Your task to perform on an android device: change the clock display to show seconds Image 0: 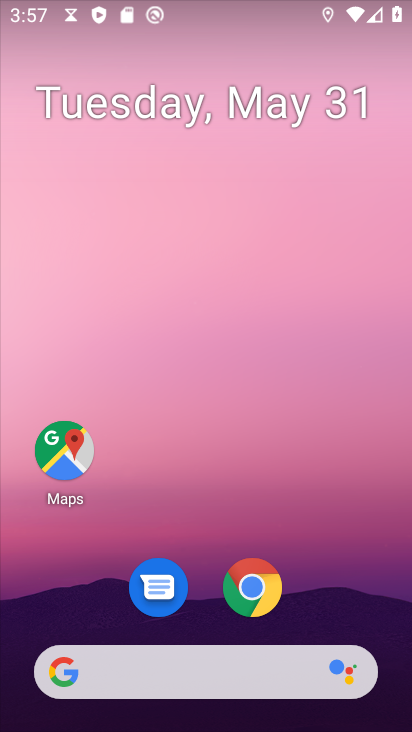
Step 0: drag from (79, 646) to (273, 154)
Your task to perform on an android device: change the clock display to show seconds Image 1: 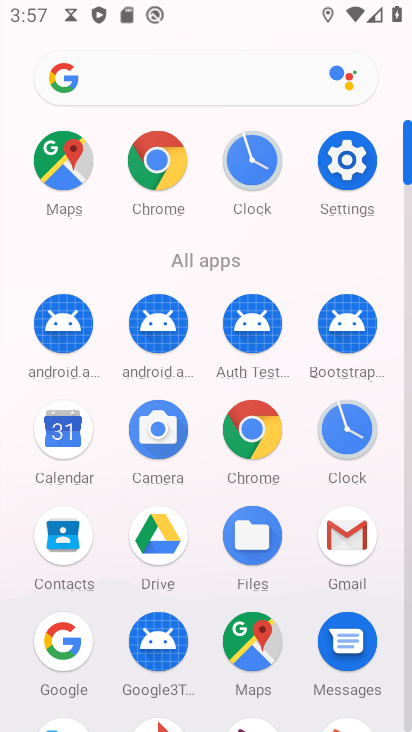
Step 1: click (337, 429)
Your task to perform on an android device: change the clock display to show seconds Image 2: 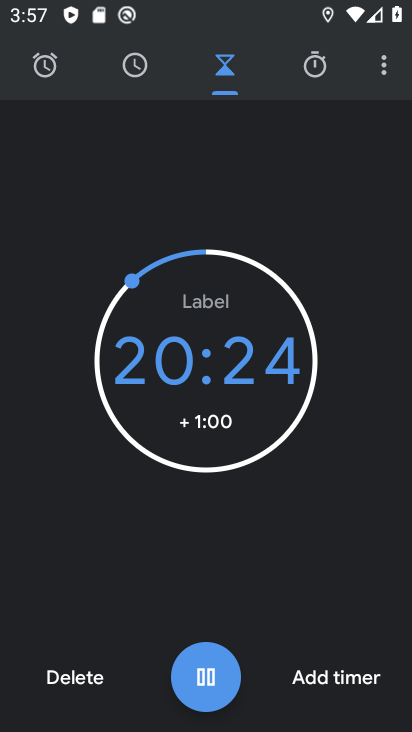
Step 2: click (389, 59)
Your task to perform on an android device: change the clock display to show seconds Image 3: 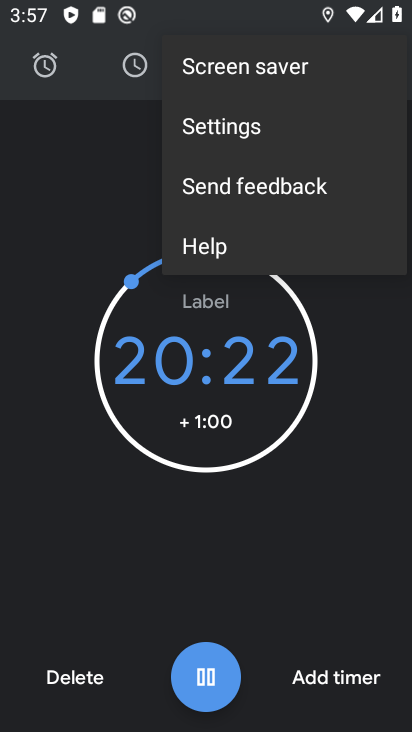
Step 3: click (328, 134)
Your task to perform on an android device: change the clock display to show seconds Image 4: 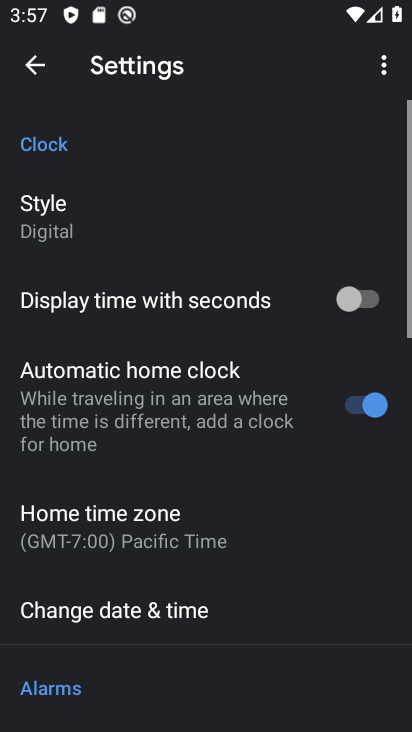
Step 4: click (371, 280)
Your task to perform on an android device: change the clock display to show seconds Image 5: 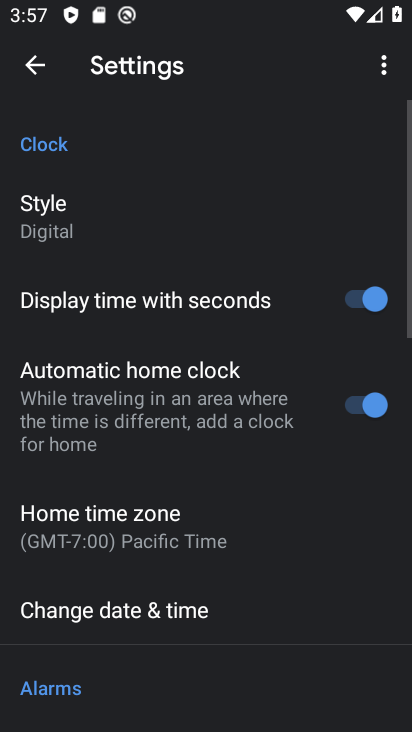
Step 5: task complete